Your task to perform on an android device: toggle show notifications on the lock screen Image 0: 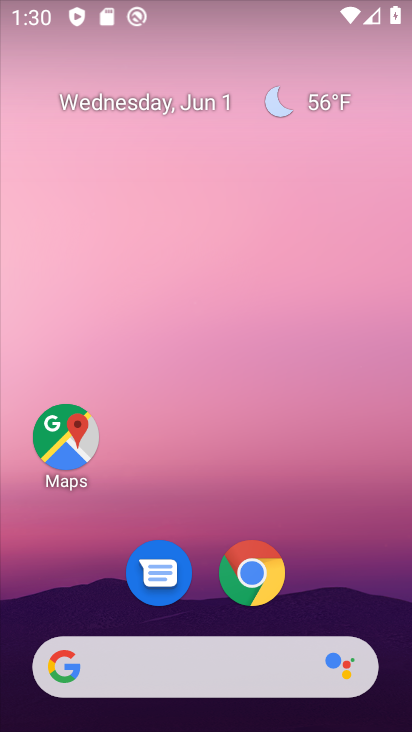
Step 0: click (232, 207)
Your task to perform on an android device: toggle show notifications on the lock screen Image 1: 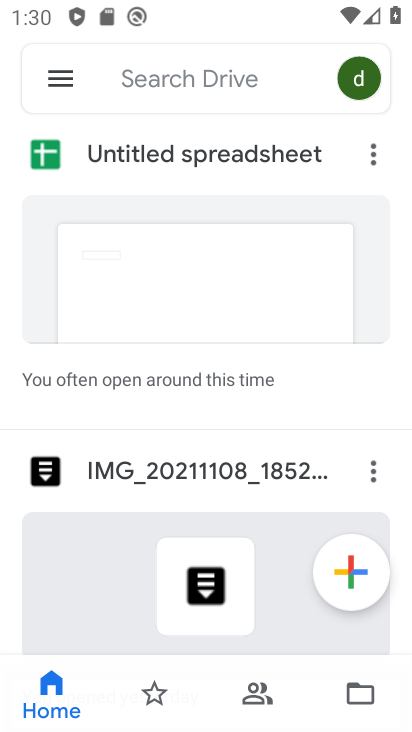
Step 1: press home button
Your task to perform on an android device: toggle show notifications on the lock screen Image 2: 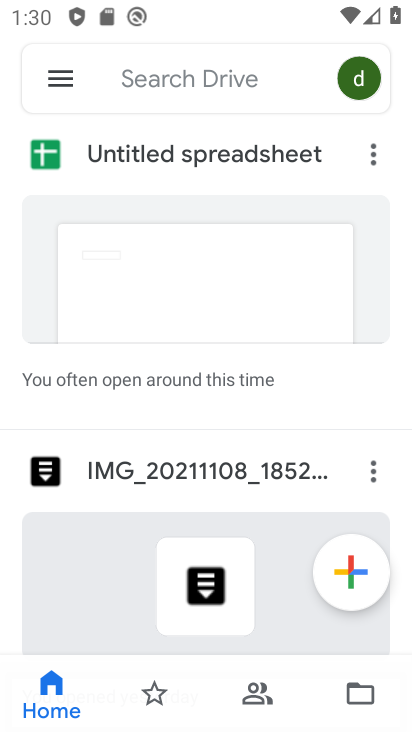
Step 2: press home button
Your task to perform on an android device: toggle show notifications on the lock screen Image 3: 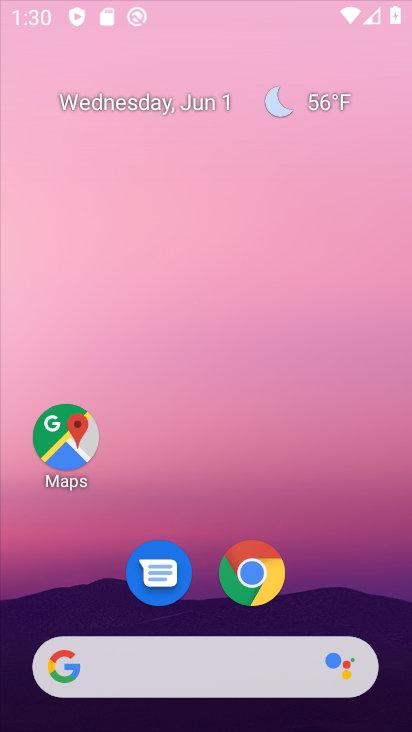
Step 3: drag from (259, 499) to (288, 150)
Your task to perform on an android device: toggle show notifications on the lock screen Image 4: 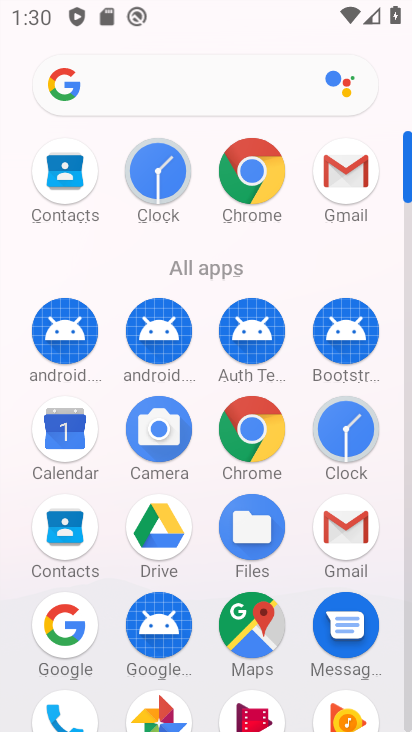
Step 4: drag from (217, 541) to (225, 178)
Your task to perform on an android device: toggle show notifications on the lock screen Image 5: 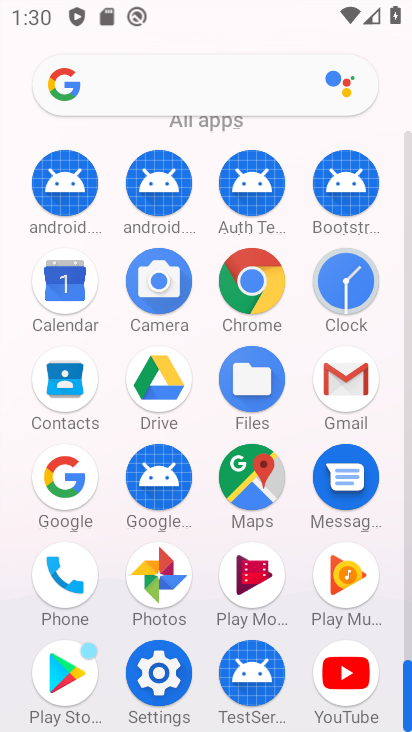
Step 5: click (184, 665)
Your task to perform on an android device: toggle show notifications on the lock screen Image 6: 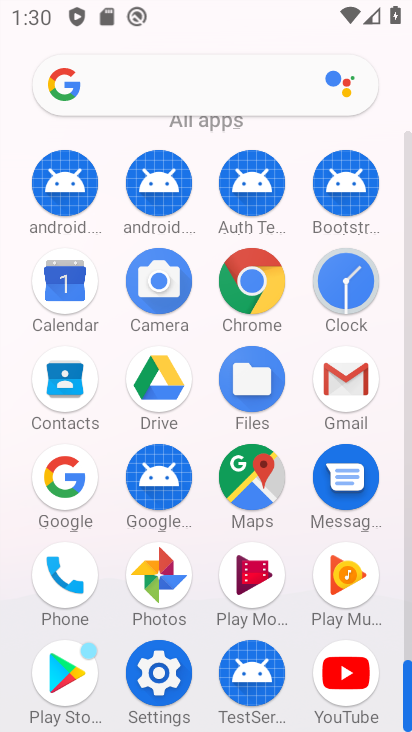
Step 6: click (184, 665)
Your task to perform on an android device: toggle show notifications on the lock screen Image 7: 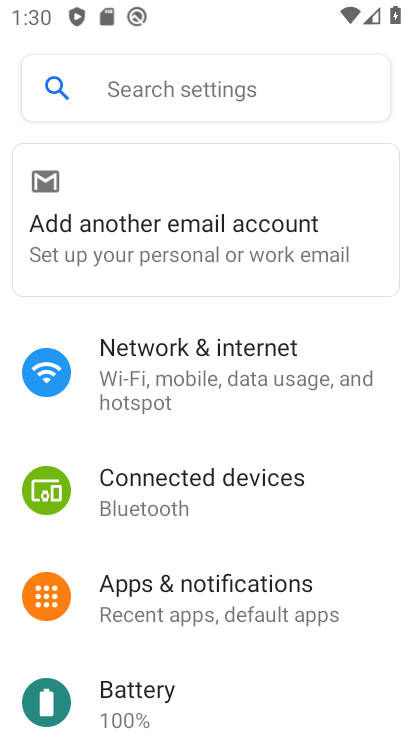
Step 7: drag from (186, 688) to (240, 166)
Your task to perform on an android device: toggle show notifications on the lock screen Image 8: 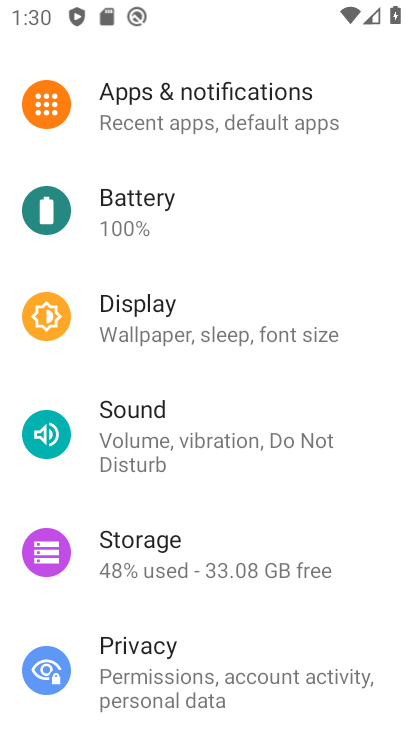
Step 8: click (229, 106)
Your task to perform on an android device: toggle show notifications on the lock screen Image 9: 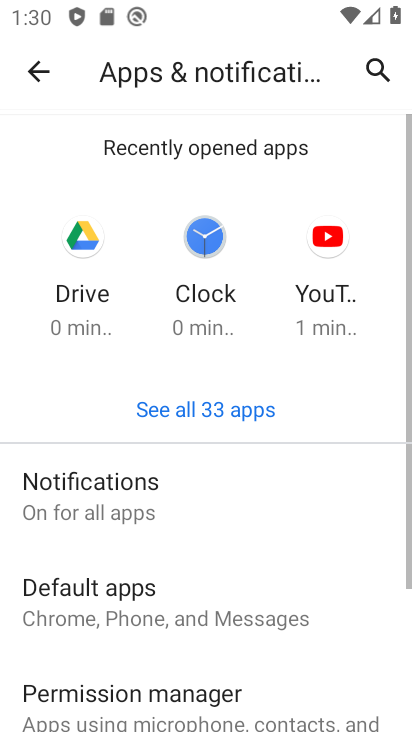
Step 9: click (196, 506)
Your task to perform on an android device: toggle show notifications on the lock screen Image 10: 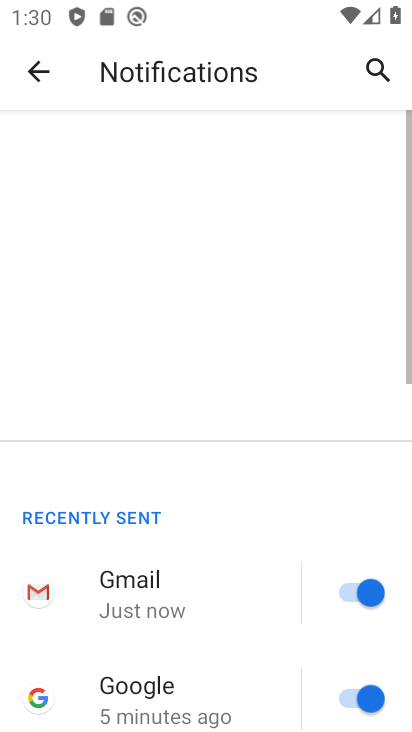
Step 10: drag from (147, 608) to (155, 175)
Your task to perform on an android device: toggle show notifications on the lock screen Image 11: 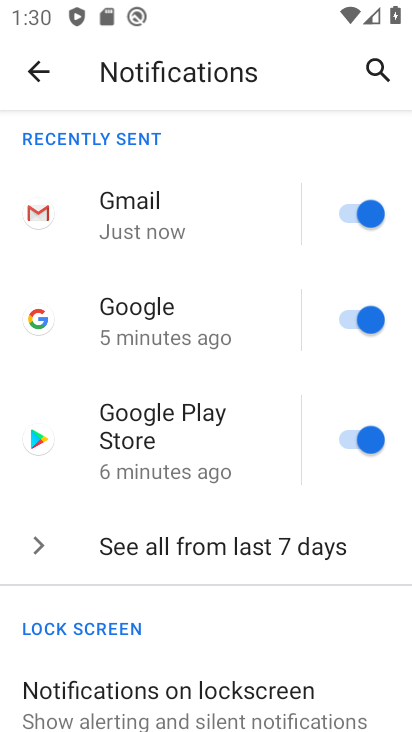
Step 11: drag from (216, 629) to (194, 126)
Your task to perform on an android device: toggle show notifications on the lock screen Image 12: 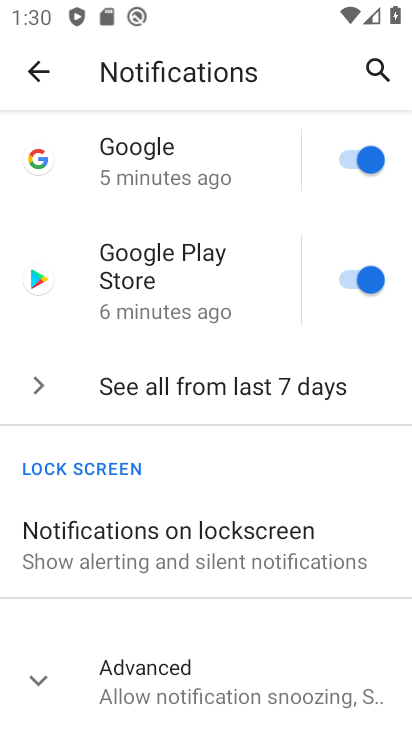
Step 12: click (161, 530)
Your task to perform on an android device: toggle show notifications on the lock screen Image 13: 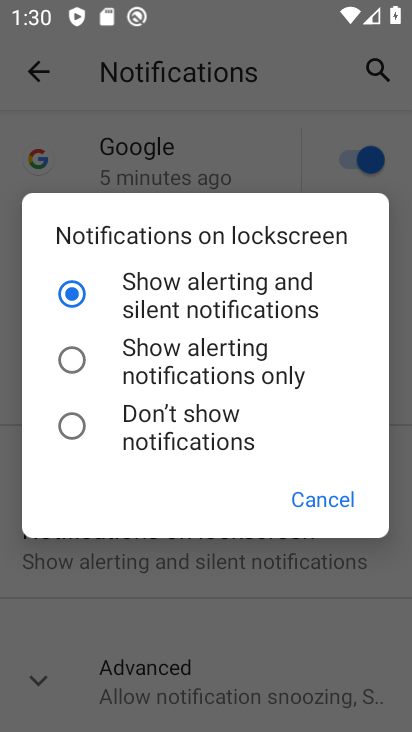
Step 13: click (137, 357)
Your task to perform on an android device: toggle show notifications on the lock screen Image 14: 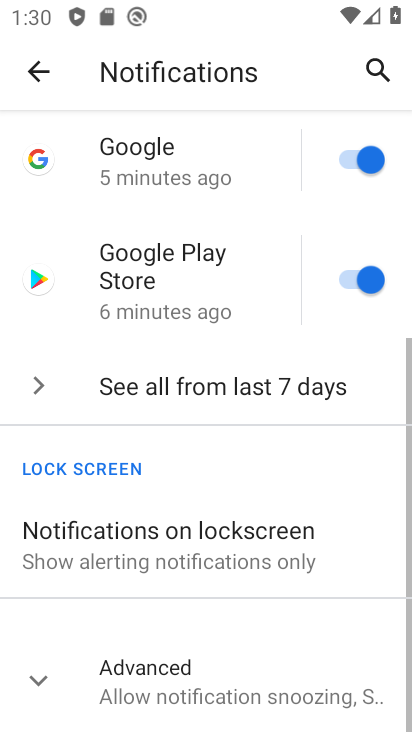
Step 14: task complete